Your task to perform on an android device: Open the stopwatch Image 0: 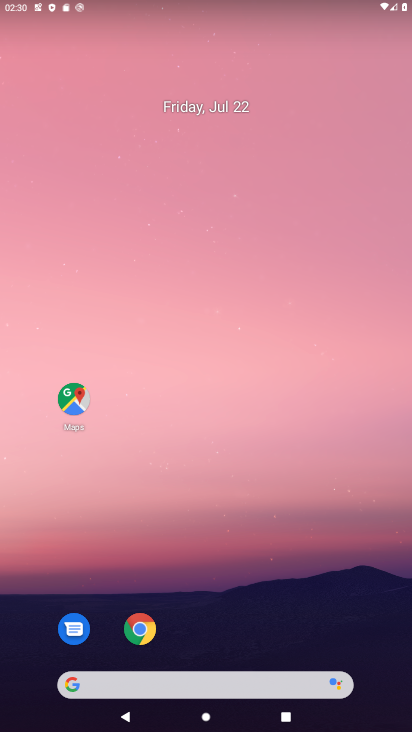
Step 0: drag from (7, 710) to (273, 93)
Your task to perform on an android device: Open the stopwatch Image 1: 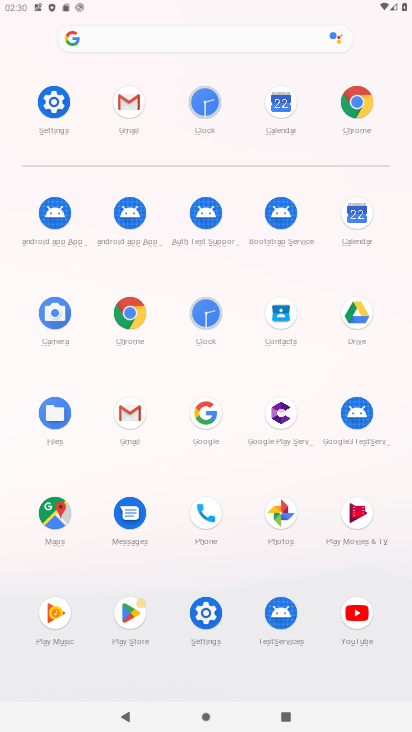
Step 1: click (195, 303)
Your task to perform on an android device: Open the stopwatch Image 2: 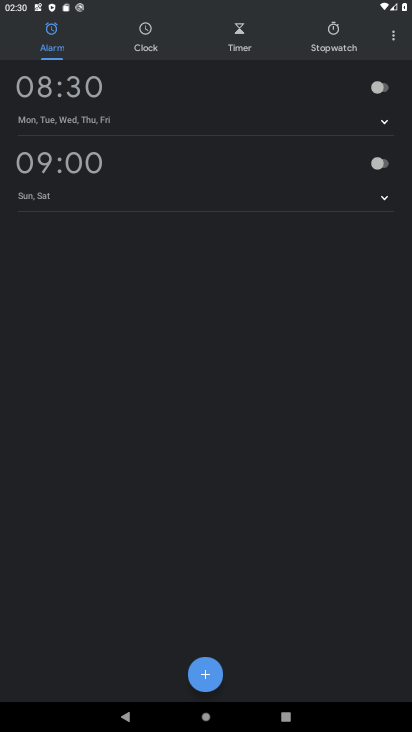
Step 2: click (330, 38)
Your task to perform on an android device: Open the stopwatch Image 3: 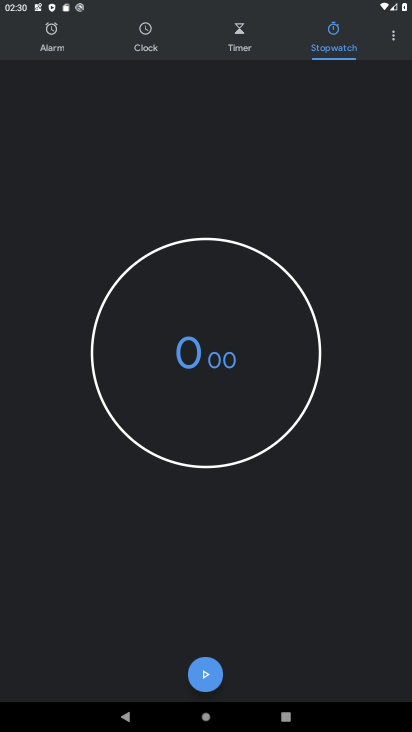
Step 3: click (207, 671)
Your task to perform on an android device: Open the stopwatch Image 4: 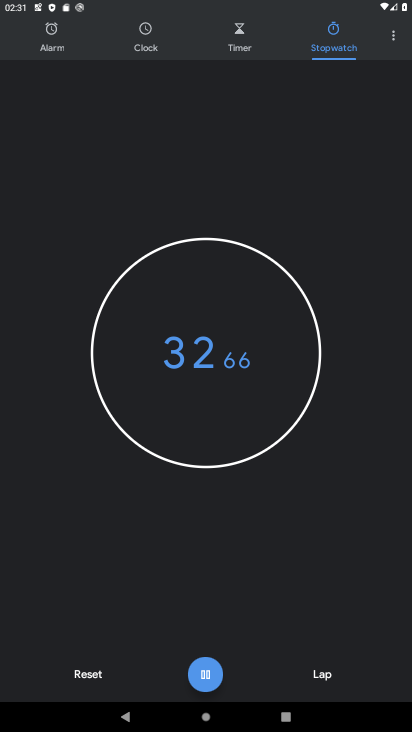
Step 4: task complete